Your task to perform on an android device: Turn off the flashlight Image 0: 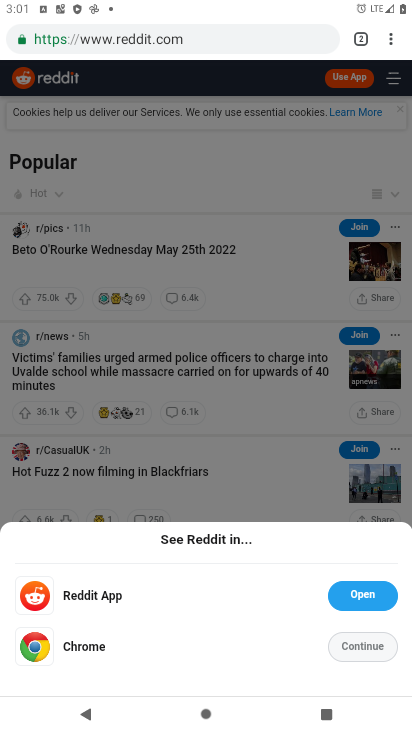
Step 0: press home button
Your task to perform on an android device: Turn off the flashlight Image 1: 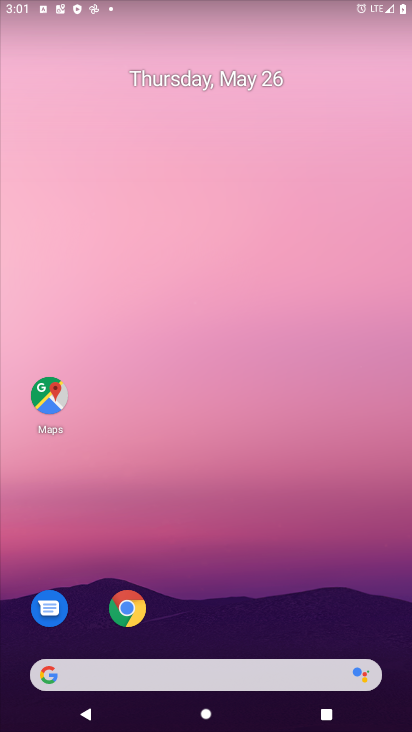
Step 1: drag from (224, 13) to (279, 404)
Your task to perform on an android device: Turn off the flashlight Image 2: 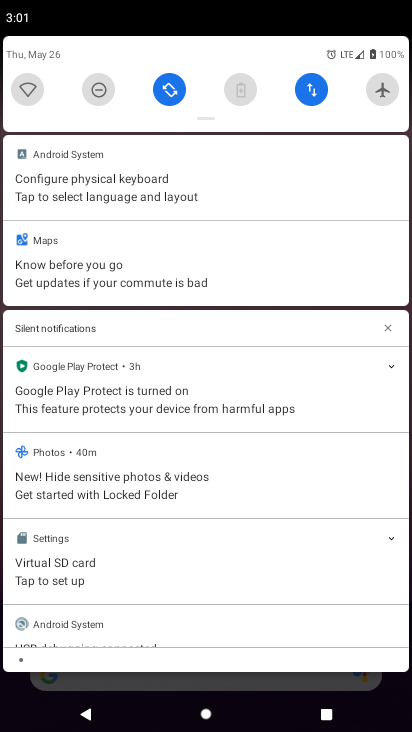
Step 2: drag from (209, 118) to (203, 427)
Your task to perform on an android device: Turn off the flashlight Image 3: 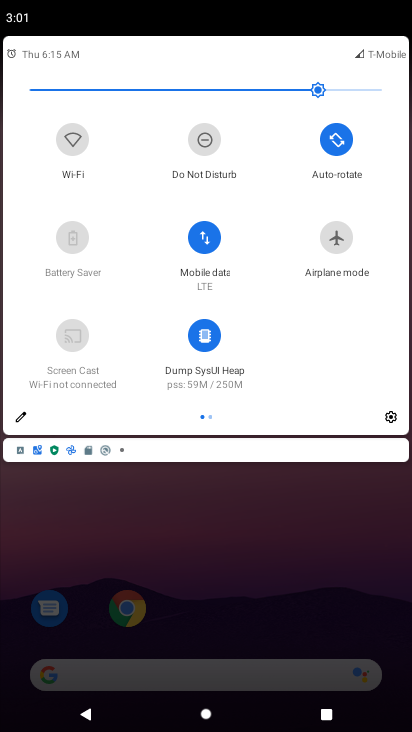
Step 3: click (12, 411)
Your task to perform on an android device: Turn off the flashlight Image 4: 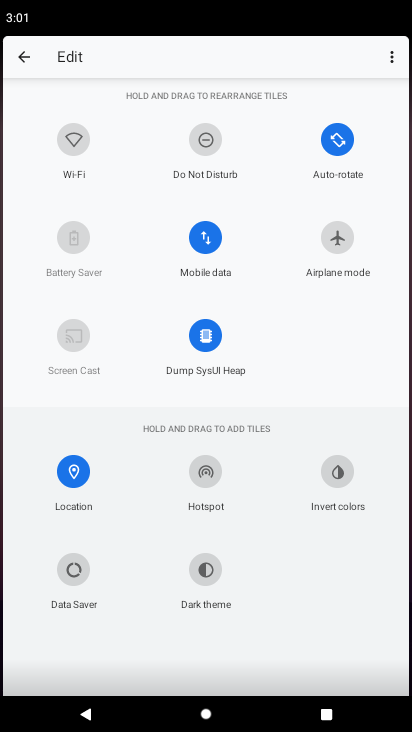
Step 4: task complete